Your task to perform on an android device: turn off improve location accuracy Image 0: 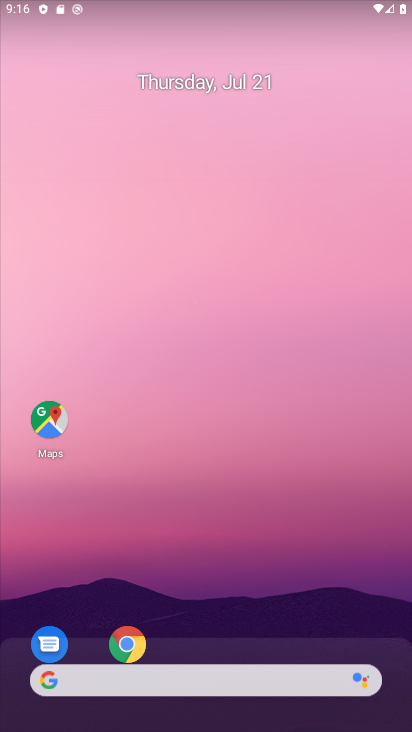
Step 0: drag from (314, 644) to (199, 5)
Your task to perform on an android device: turn off improve location accuracy Image 1: 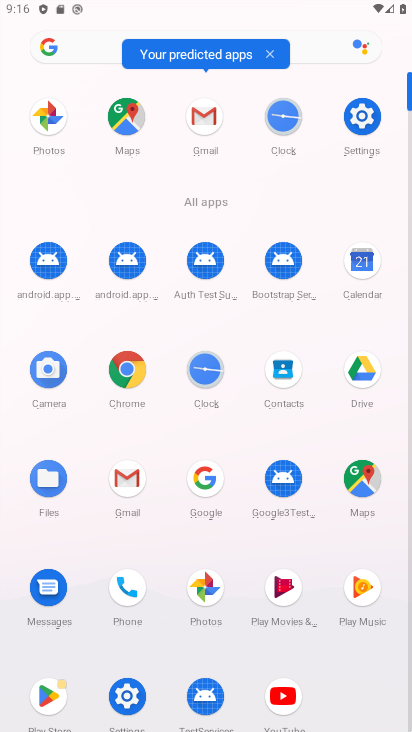
Step 1: click (361, 129)
Your task to perform on an android device: turn off improve location accuracy Image 2: 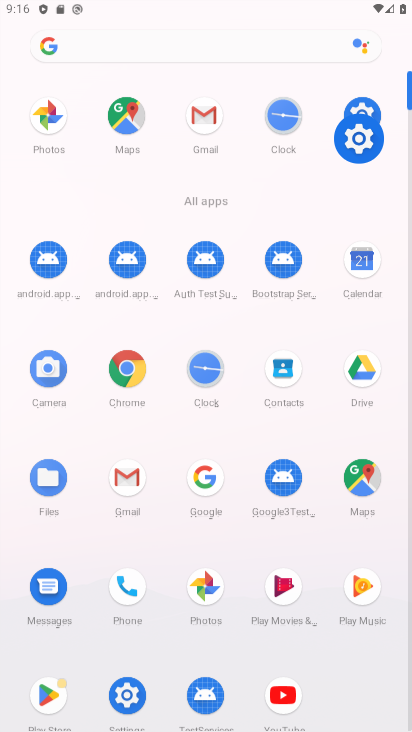
Step 2: task complete